Your task to perform on an android device: Open settings on Google Maps Image 0: 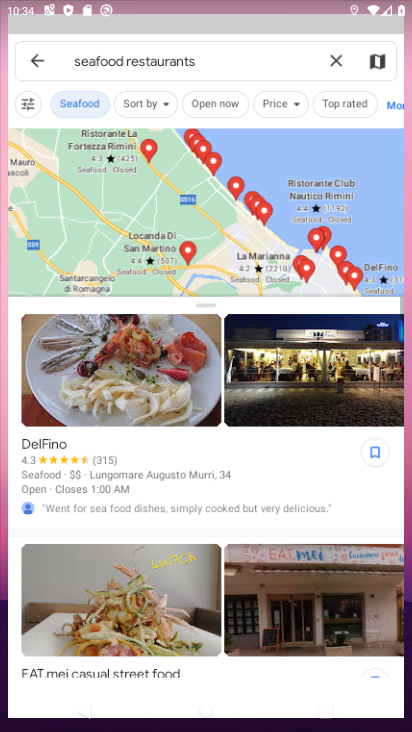
Step 0: drag from (285, 574) to (278, 127)
Your task to perform on an android device: Open settings on Google Maps Image 1: 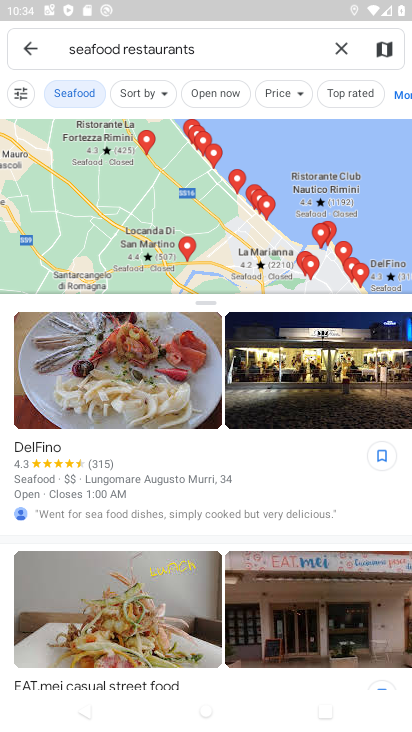
Step 1: click (29, 41)
Your task to perform on an android device: Open settings on Google Maps Image 2: 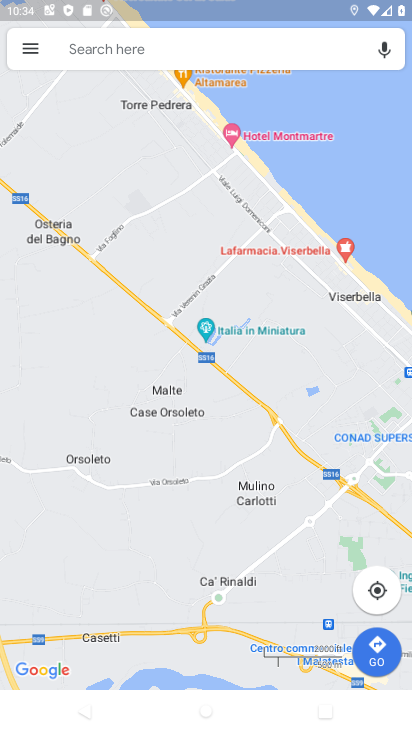
Step 2: click (29, 41)
Your task to perform on an android device: Open settings on Google Maps Image 3: 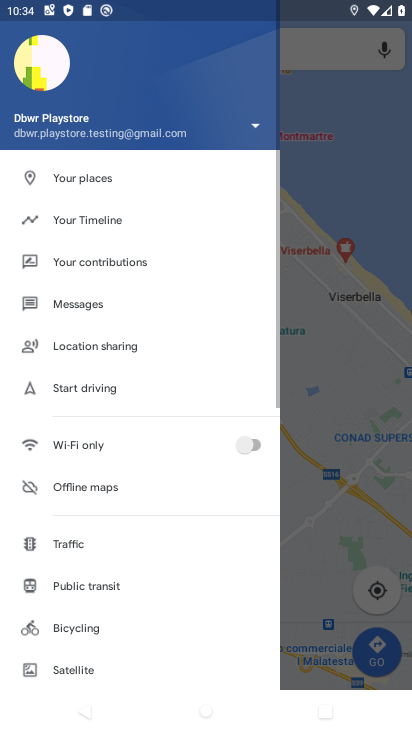
Step 3: drag from (185, 543) to (206, 103)
Your task to perform on an android device: Open settings on Google Maps Image 4: 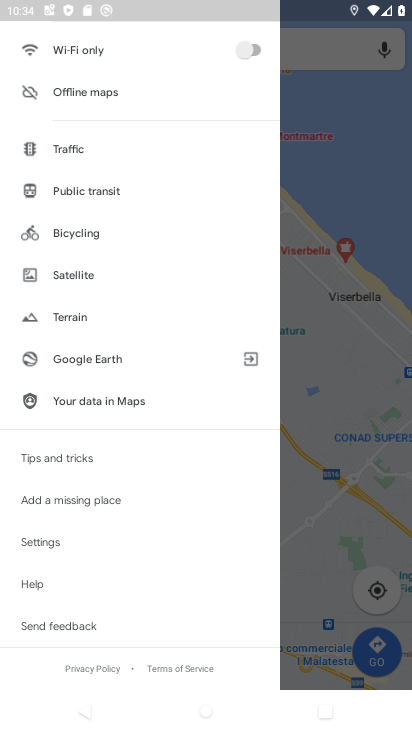
Step 4: click (40, 542)
Your task to perform on an android device: Open settings on Google Maps Image 5: 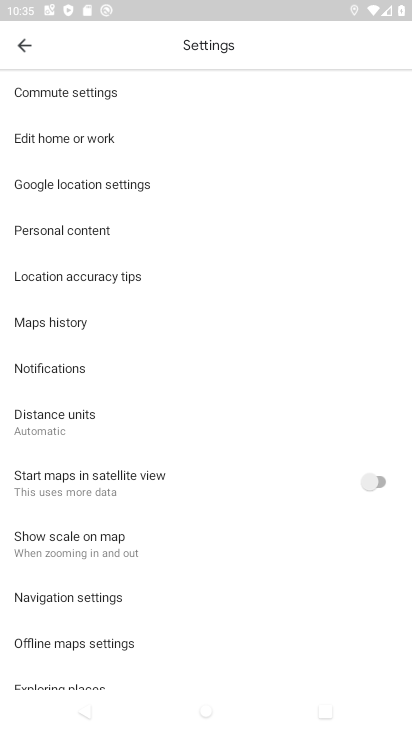
Step 5: task complete